Your task to perform on an android device: add a contact Image 0: 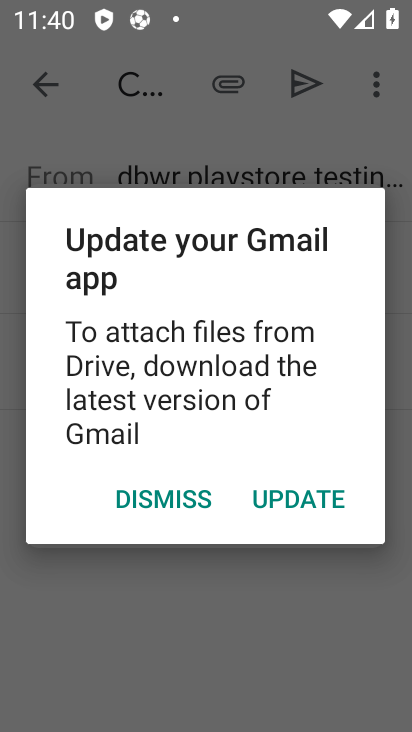
Step 0: press home button
Your task to perform on an android device: add a contact Image 1: 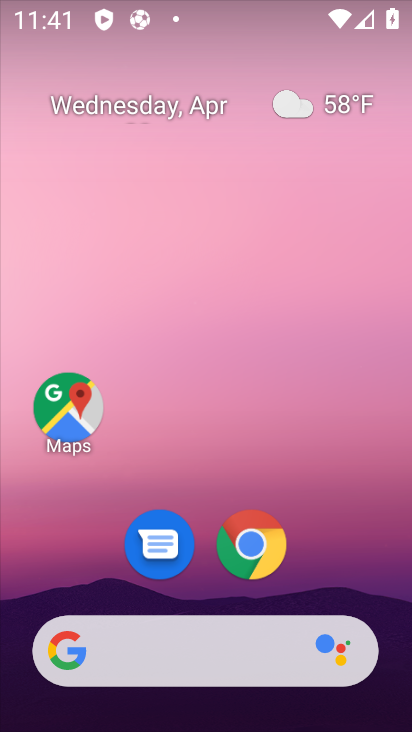
Step 1: drag from (334, 453) to (356, 84)
Your task to perform on an android device: add a contact Image 2: 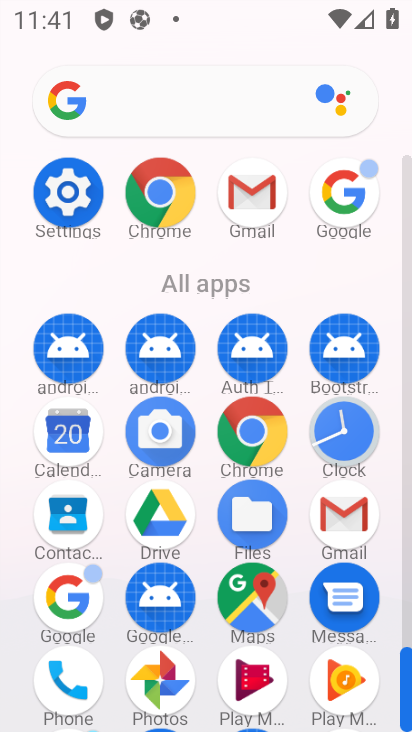
Step 2: click (82, 526)
Your task to perform on an android device: add a contact Image 3: 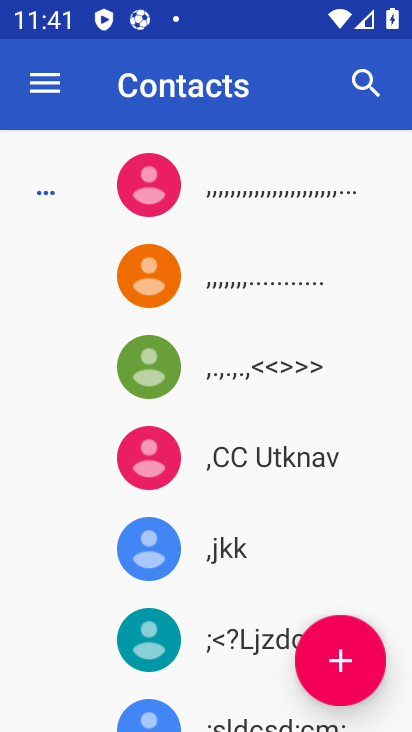
Step 3: click (347, 666)
Your task to perform on an android device: add a contact Image 4: 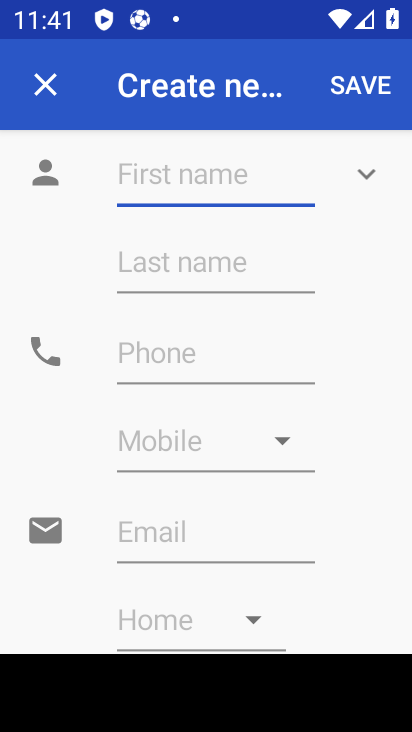
Step 4: click (230, 163)
Your task to perform on an android device: add a contact Image 5: 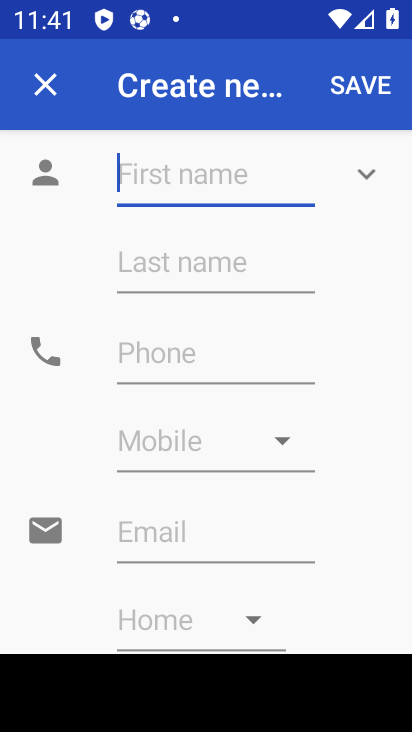
Step 5: type "tushar"
Your task to perform on an android device: add a contact Image 6: 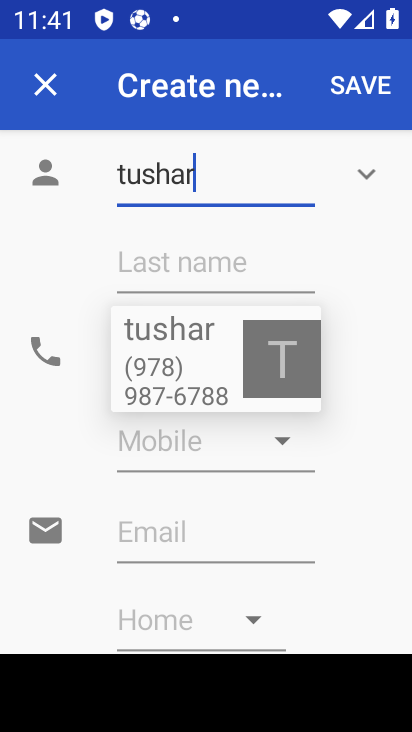
Step 6: click (257, 266)
Your task to perform on an android device: add a contact Image 7: 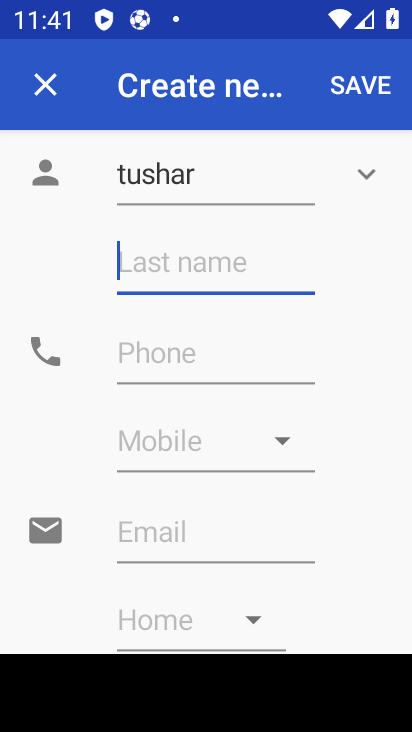
Step 7: type "Ahmad"
Your task to perform on an android device: add a contact Image 8: 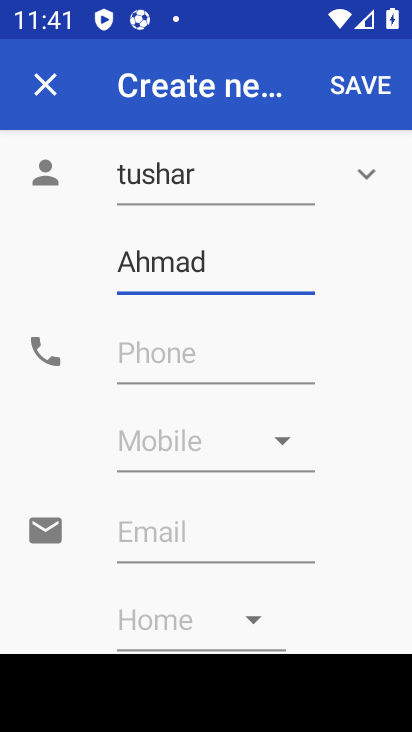
Step 8: click (380, 83)
Your task to perform on an android device: add a contact Image 9: 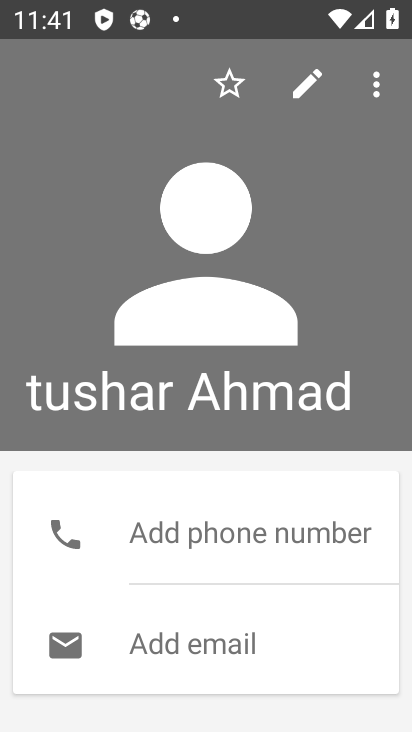
Step 9: click (197, 526)
Your task to perform on an android device: add a contact Image 10: 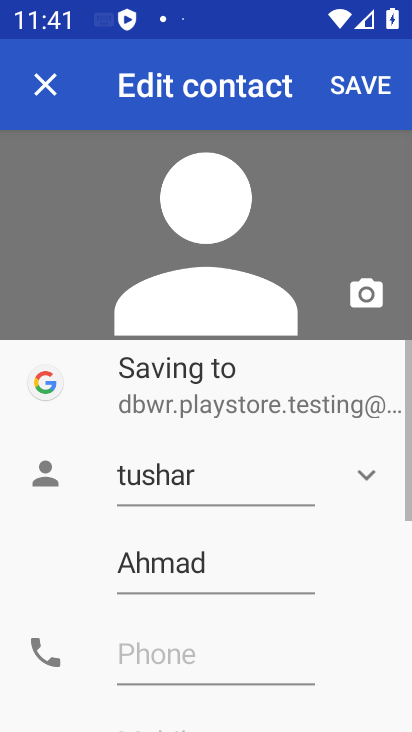
Step 10: click (252, 544)
Your task to perform on an android device: add a contact Image 11: 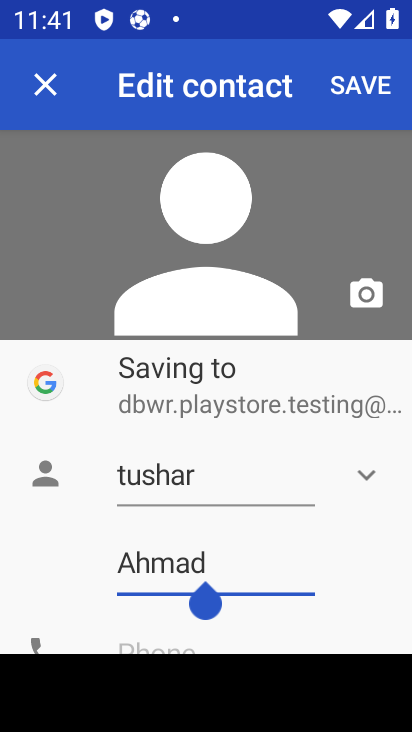
Step 11: click (202, 655)
Your task to perform on an android device: add a contact Image 12: 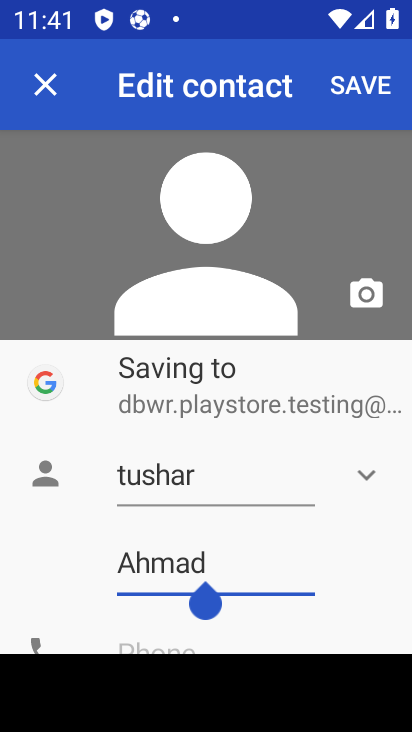
Step 12: drag from (280, 606) to (290, 337)
Your task to perform on an android device: add a contact Image 13: 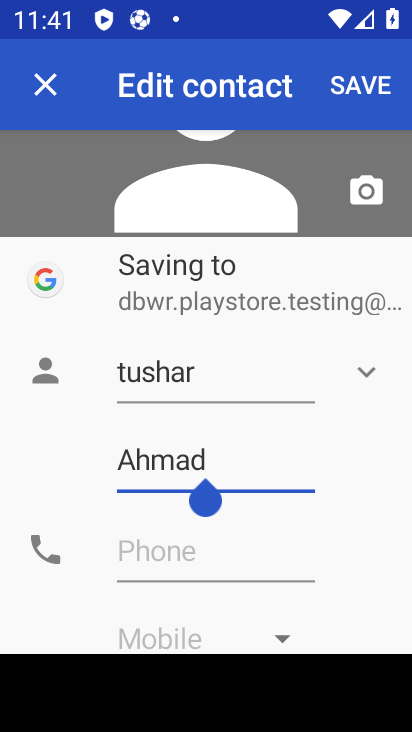
Step 13: click (158, 571)
Your task to perform on an android device: add a contact Image 14: 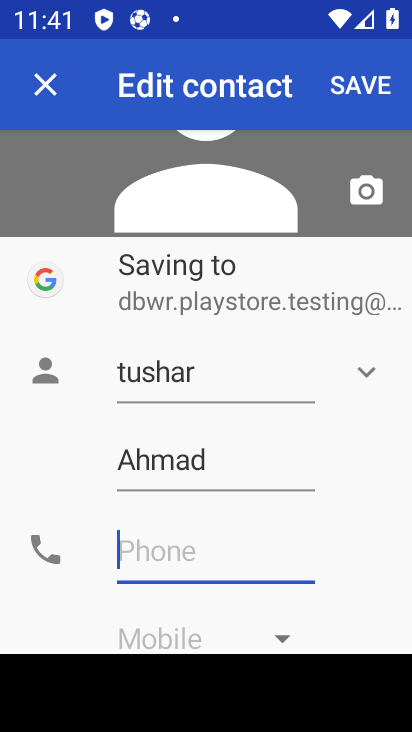
Step 14: click (156, 567)
Your task to perform on an android device: add a contact Image 15: 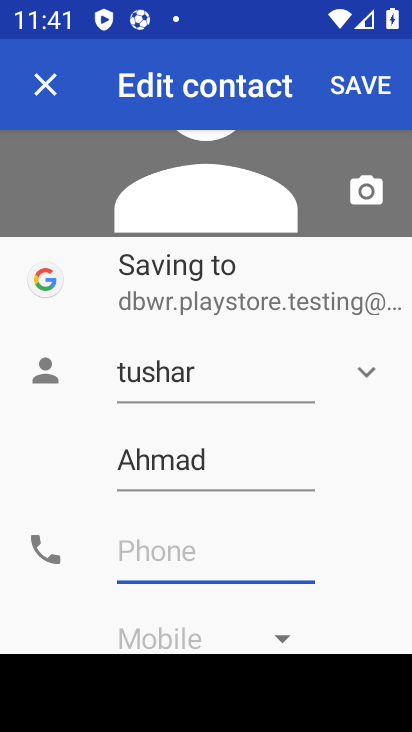
Step 15: type "9999000098"
Your task to perform on an android device: add a contact Image 16: 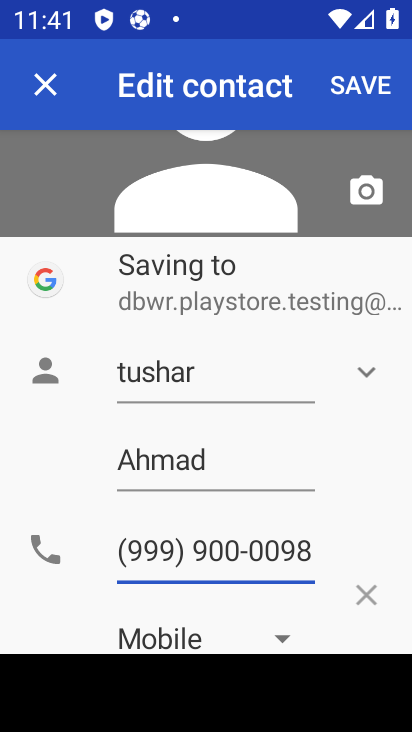
Step 16: click (347, 78)
Your task to perform on an android device: add a contact Image 17: 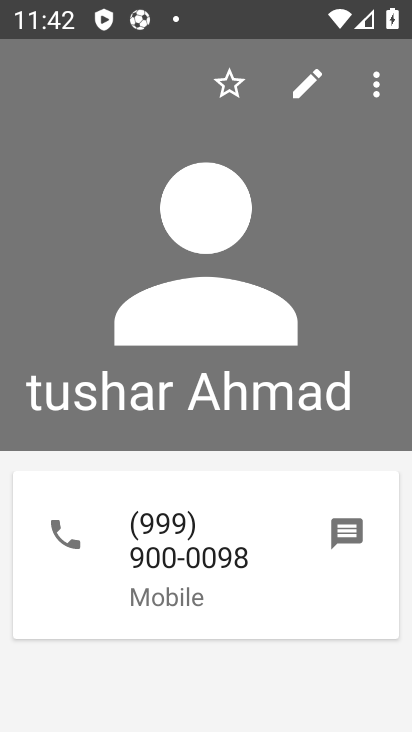
Step 17: task complete